Your task to perform on an android device: open chrome privacy settings Image 0: 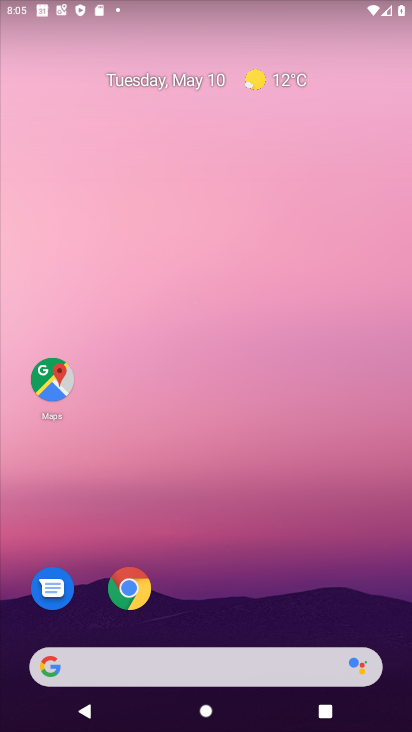
Step 0: click (136, 593)
Your task to perform on an android device: open chrome privacy settings Image 1: 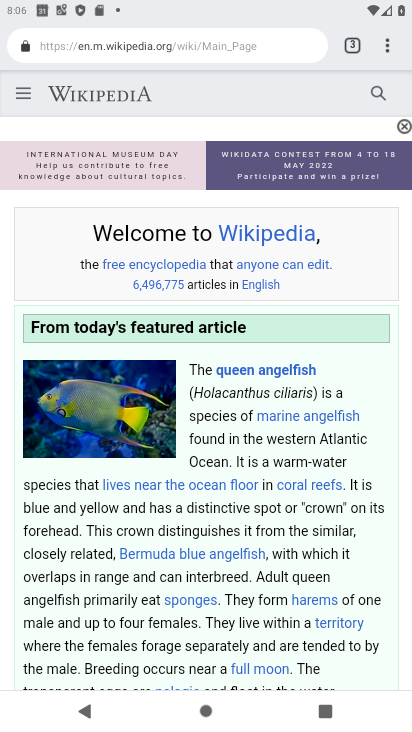
Step 1: click (378, 39)
Your task to perform on an android device: open chrome privacy settings Image 2: 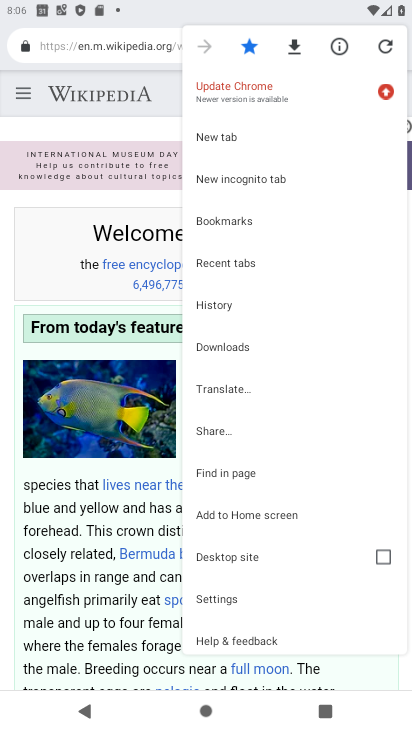
Step 2: click (250, 600)
Your task to perform on an android device: open chrome privacy settings Image 3: 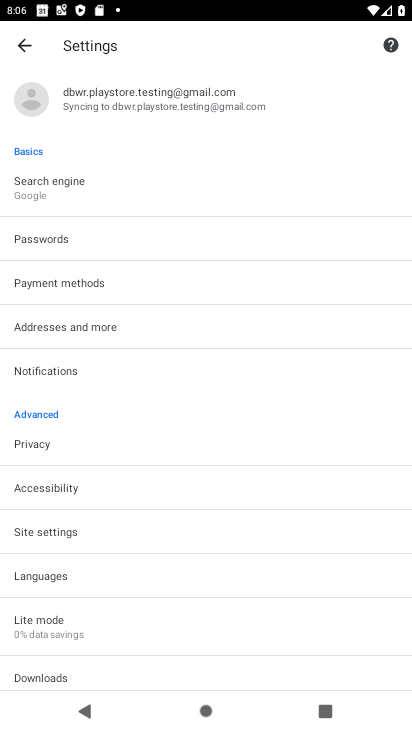
Step 3: click (70, 453)
Your task to perform on an android device: open chrome privacy settings Image 4: 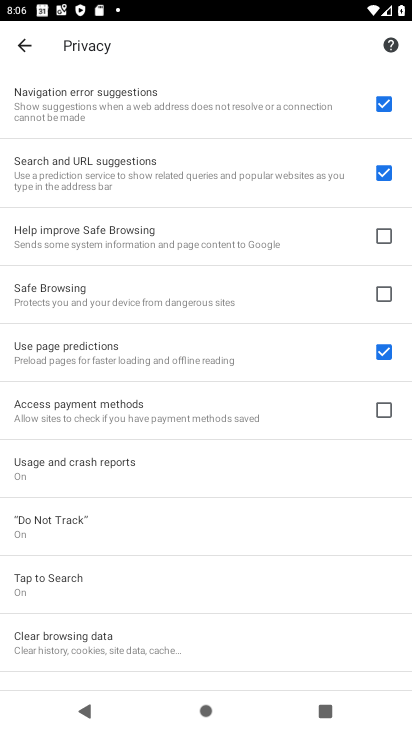
Step 4: task complete